Your task to perform on an android device: change text size in settings app Image 0: 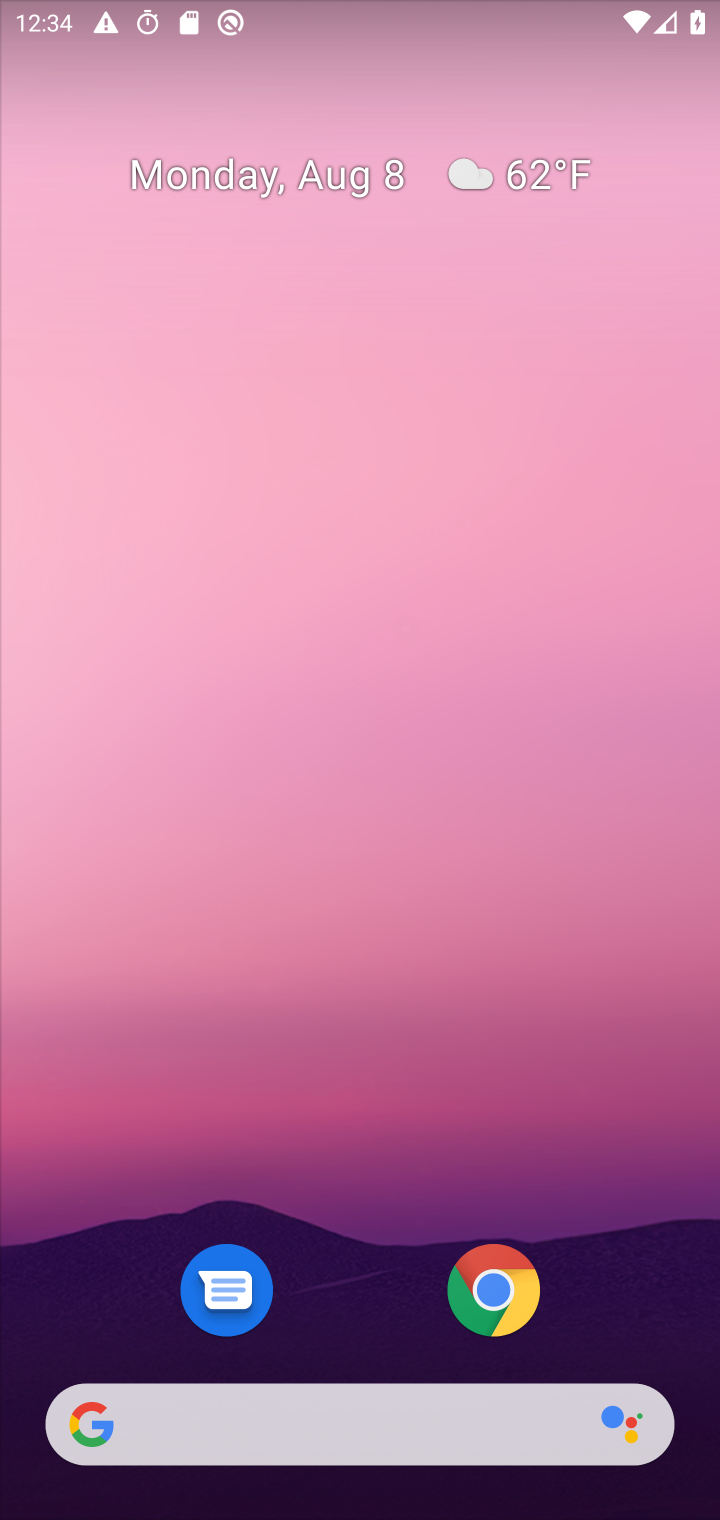
Step 0: drag from (416, 839) to (559, 402)
Your task to perform on an android device: change text size in settings app Image 1: 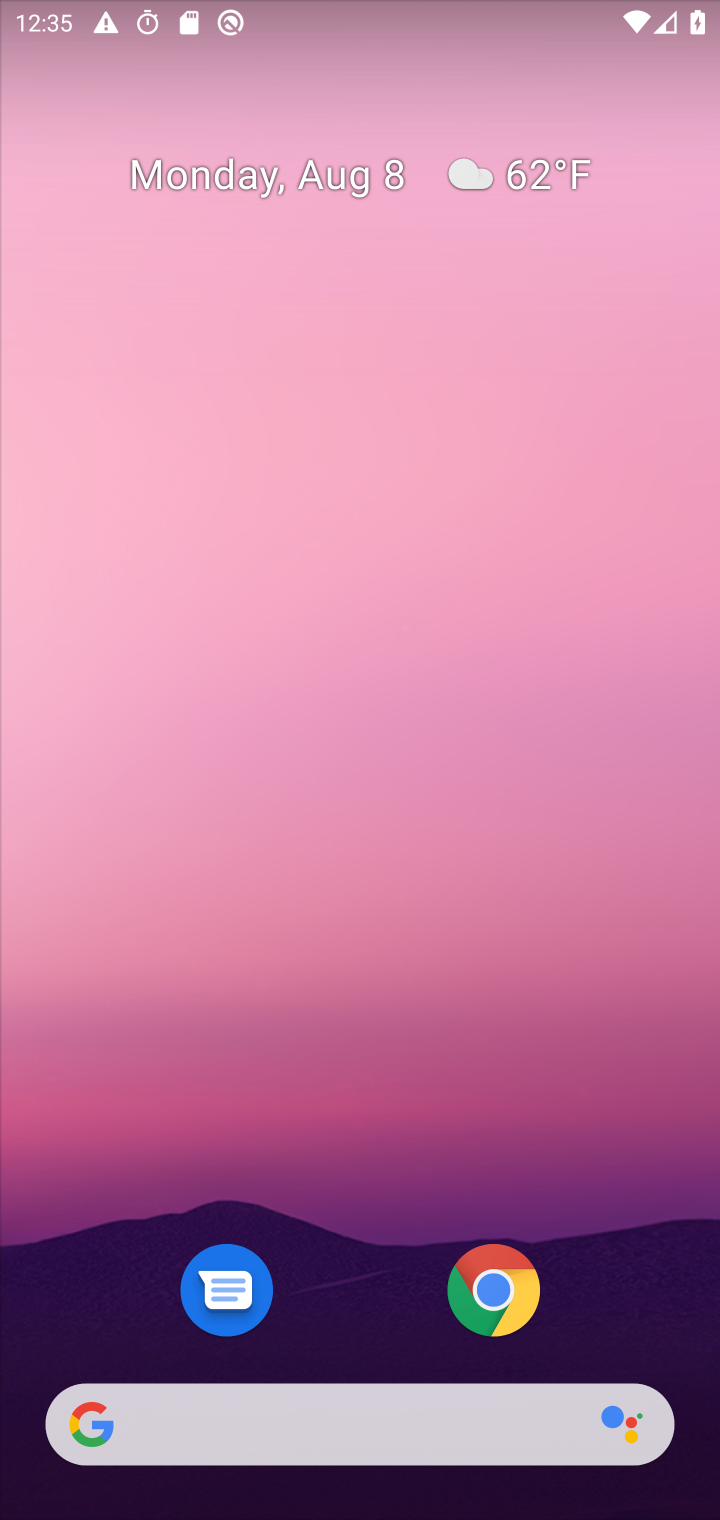
Step 1: drag from (413, 1308) to (427, 678)
Your task to perform on an android device: change text size in settings app Image 2: 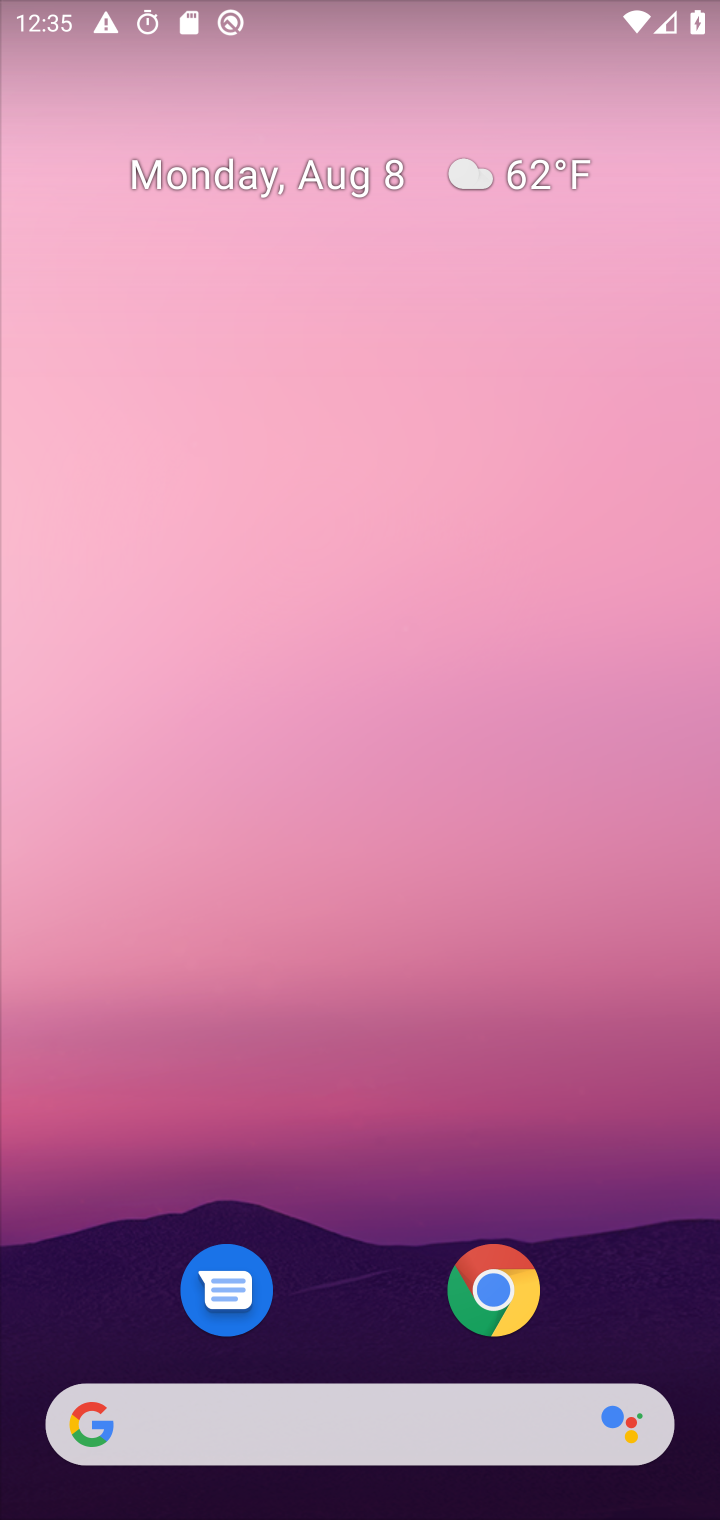
Step 2: drag from (349, 1229) to (429, 81)
Your task to perform on an android device: change text size in settings app Image 3: 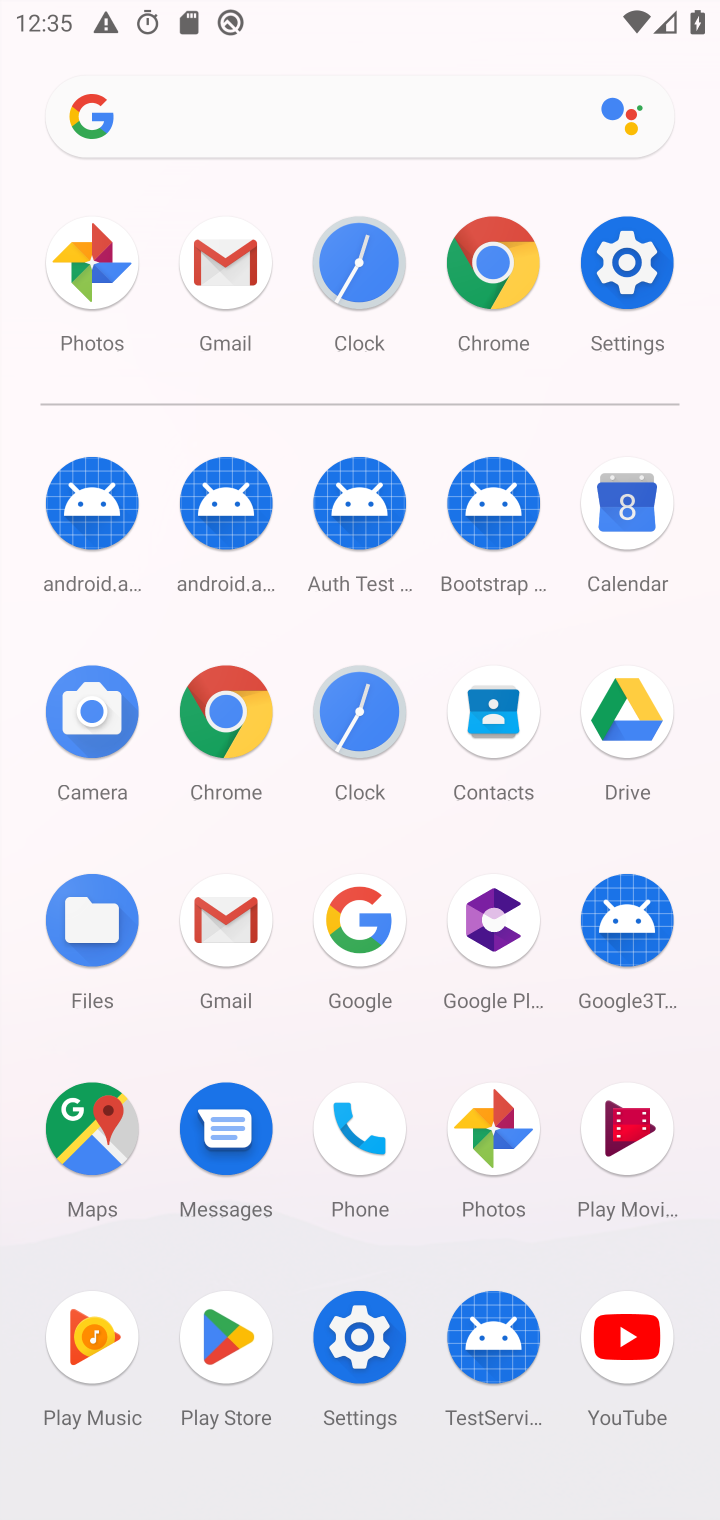
Step 3: click (347, 1375)
Your task to perform on an android device: change text size in settings app Image 4: 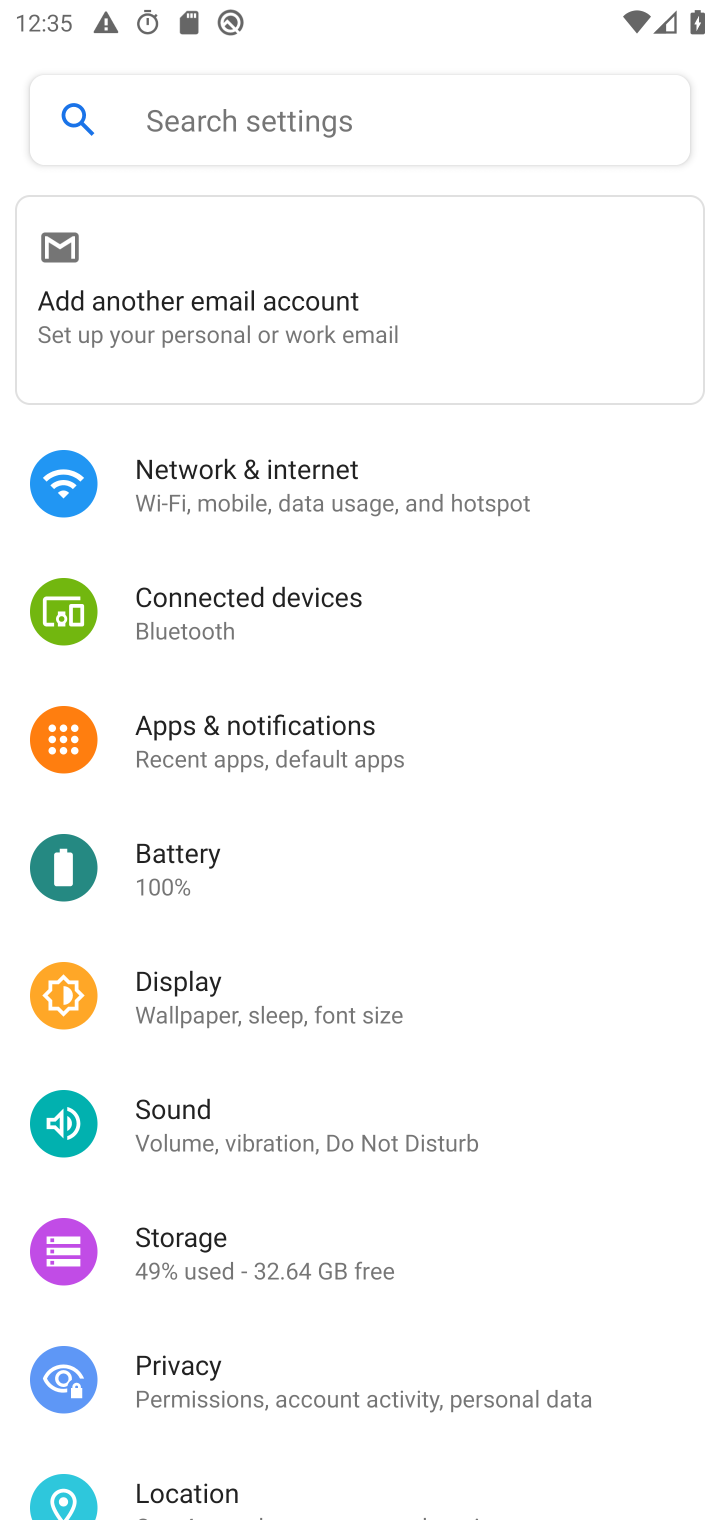
Step 4: click (218, 1000)
Your task to perform on an android device: change text size in settings app Image 5: 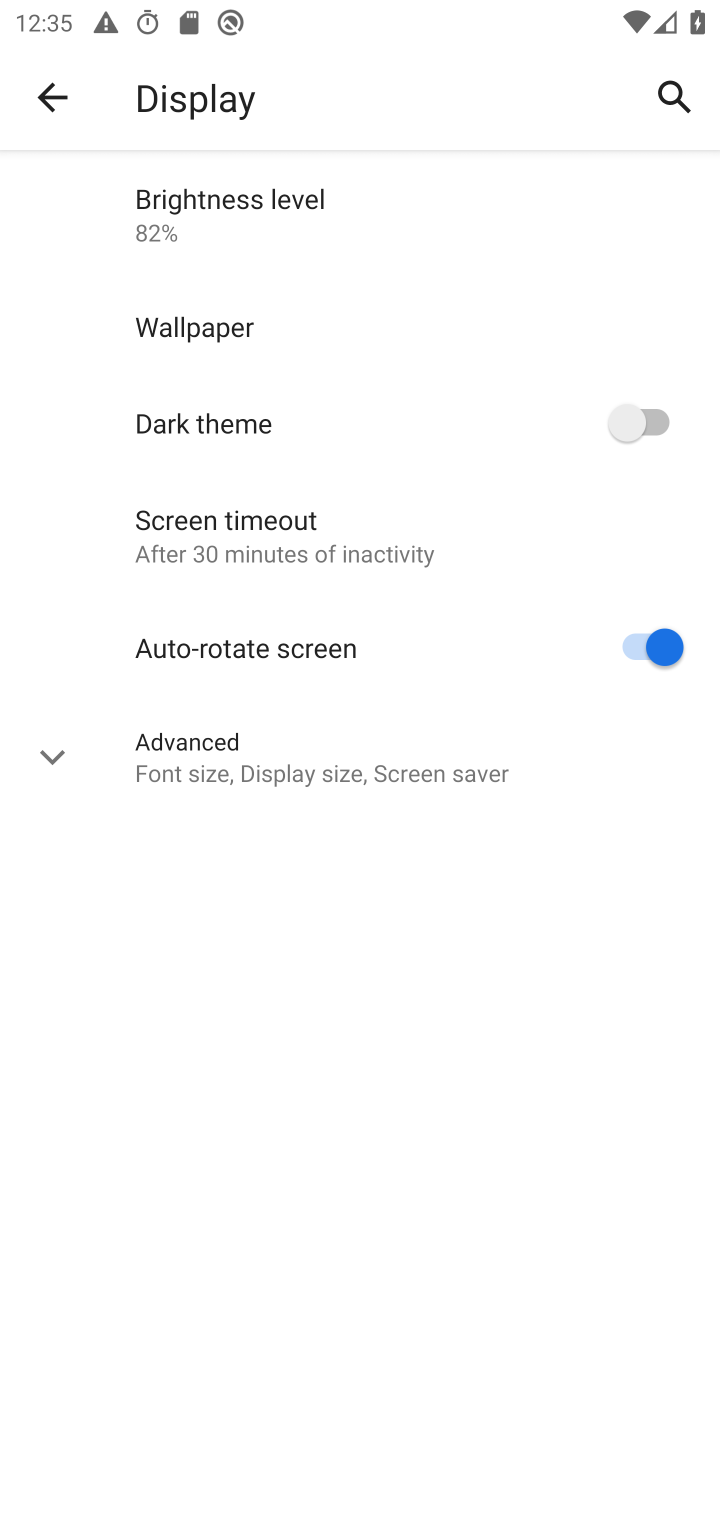
Step 5: click (275, 742)
Your task to perform on an android device: change text size in settings app Image 6: 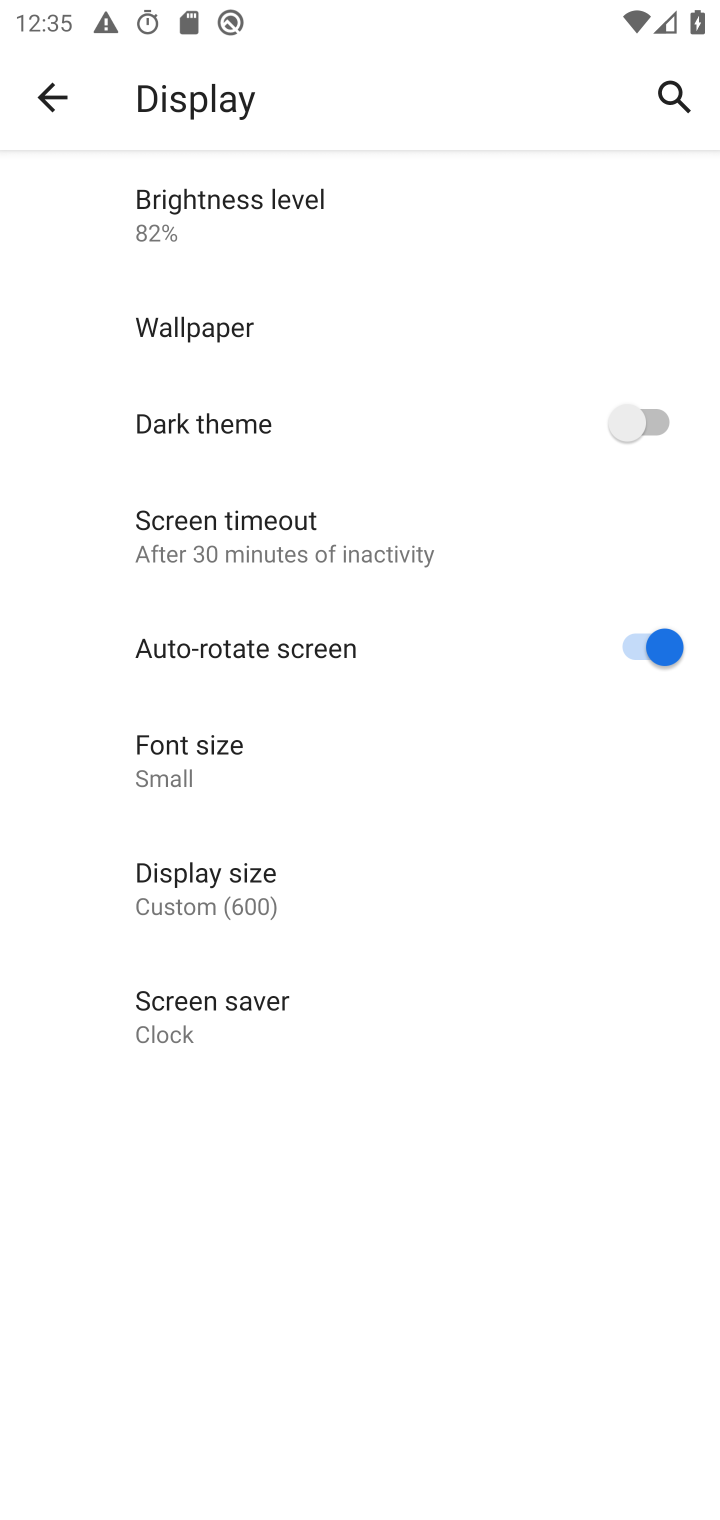
Step 6: click (205, 779)
Your task to perform on an android device: change text size in settings app Image 7: 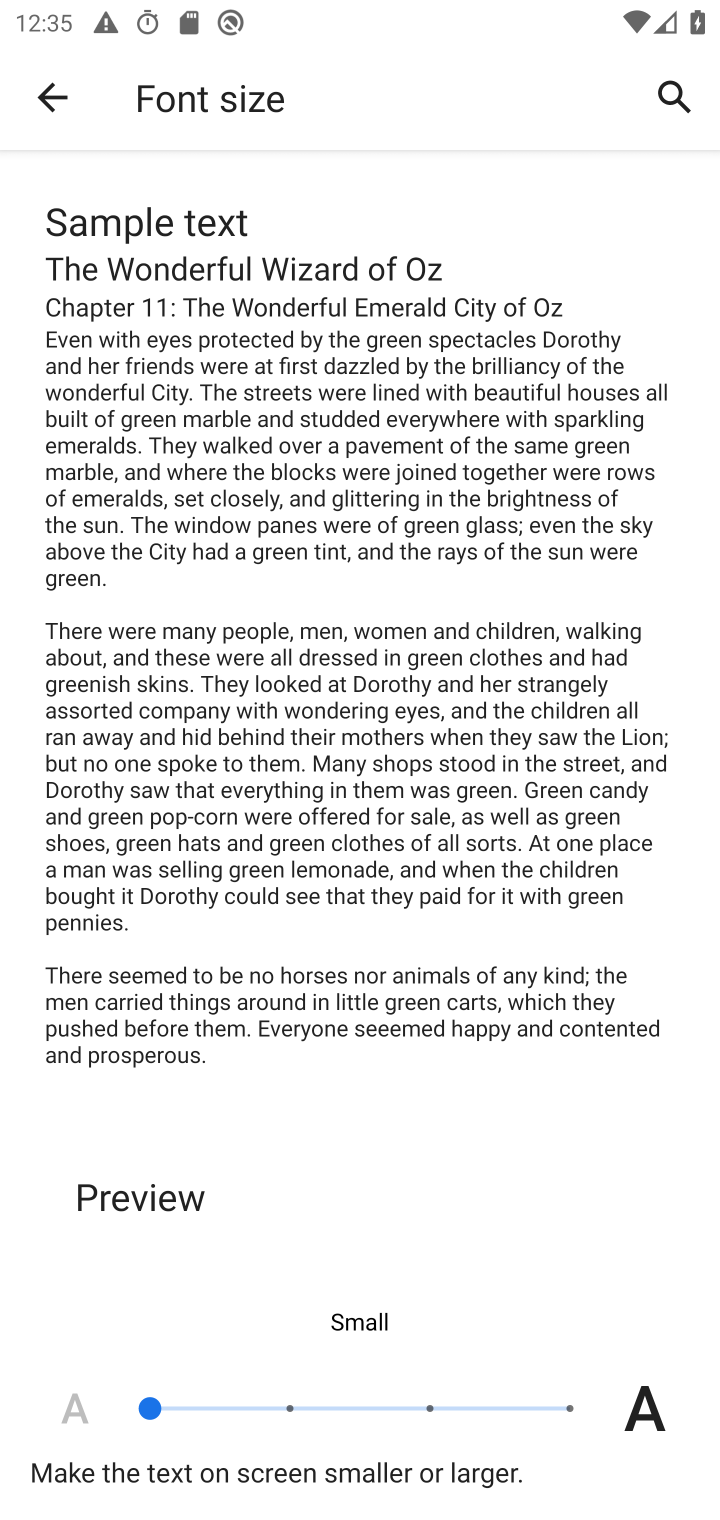
Step 7: click (428, 1411)
Your task to perform on an android device: change text size in settings app Image 8: 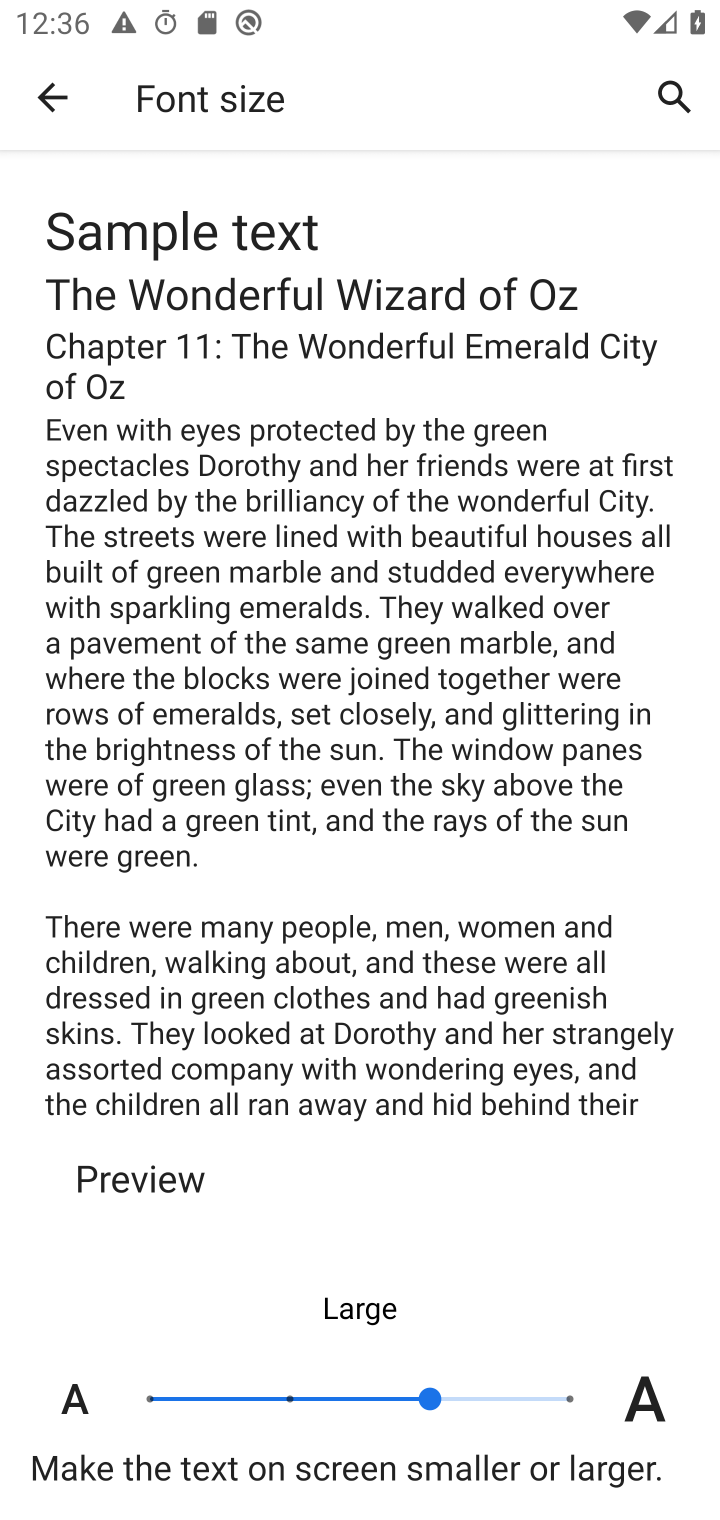
Step 8: task complete